Your task to perform on an android device: change keyboard looks Image 0: 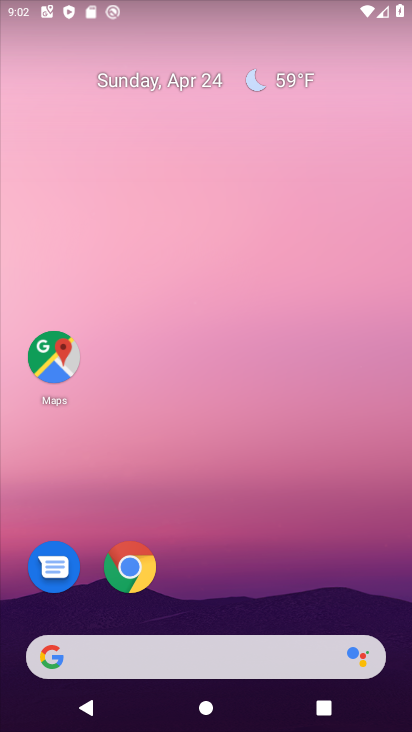
Step 0: drag from (376, 601) to (371, 237)
Your task to perform on an android device: change keyboard looks Image 1: 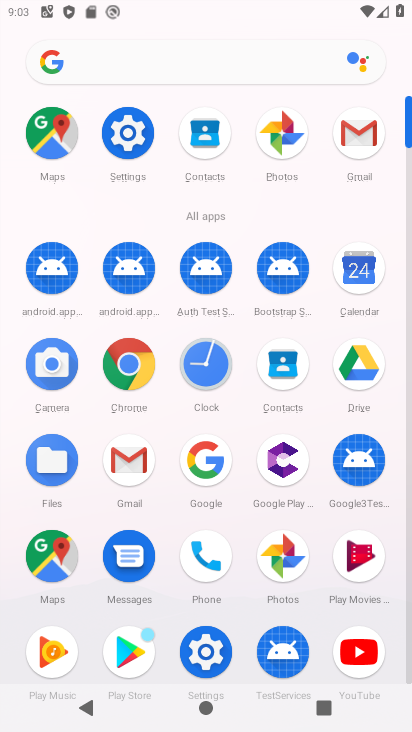
Step 1: click (202, 650)
Your task to perform on an android device: change keyboard looks Image 2: 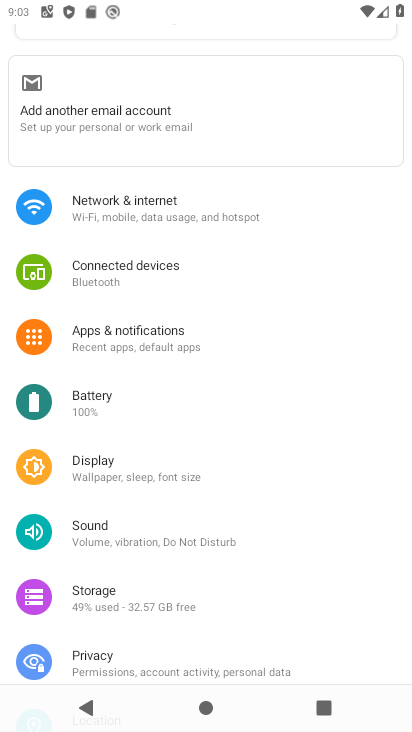
Step 2: drag from (325, 544) to (318, 359)
Your task to perform on an android device: change keyboard looks Image 3: 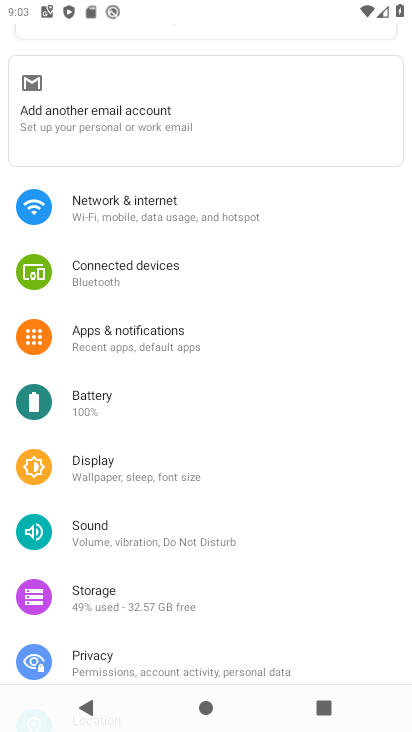
Step 3: drag from (308, 646) to (342, 274)
Your task to perform on an android device: change keyboard looks Image 4: 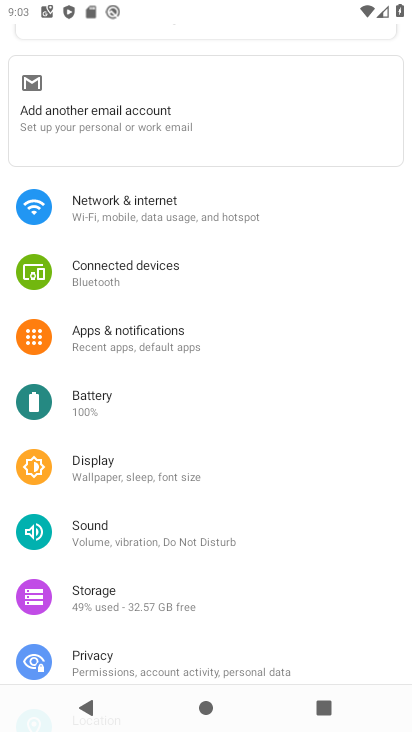
Step 4: drag from (306, 640) to (340, 241)
Your task to perform on an android device: change keyboard looks Image 5: 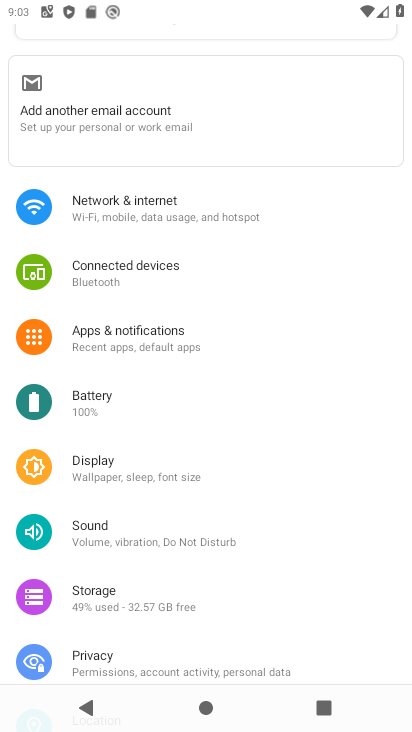
Step 5: drag from (341, 634) to (393, 216)
Your task to perform on an android device: change keyboard looks Image 6: 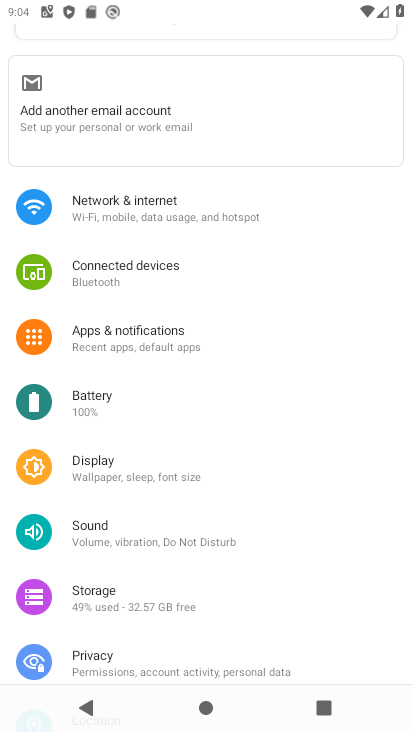
Step 6: drag from (324, 589) to (345, 209)
Your task to perform on an android device: change keyboard looks Image 7: 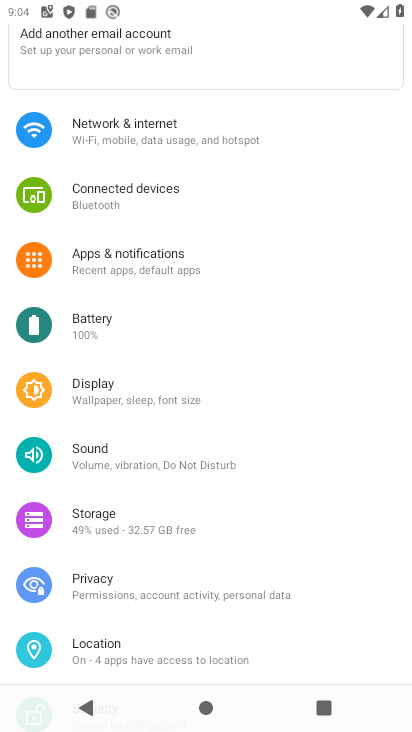
Step 7: drag from (364, 445) to (358, 268)
Your task to perform on an android device: change keyboard looks Image 8: 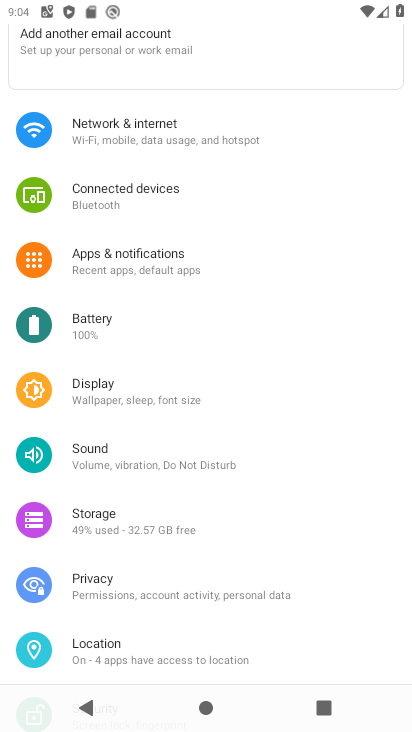
Step 8: drag from (314, 622) to (339, 226)
Your task to perform on an android device: change keyboard looks Image 9: 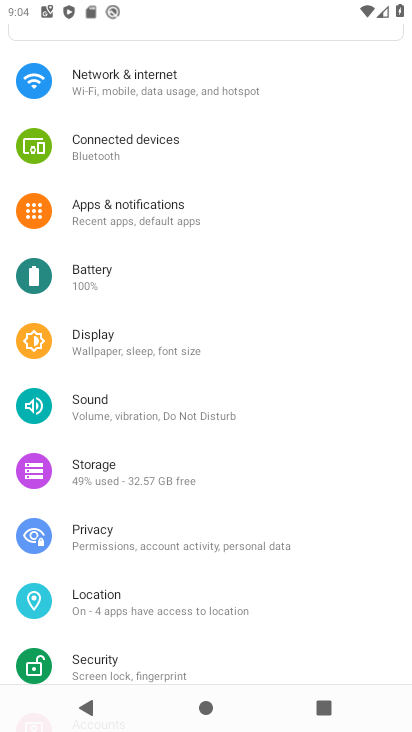
Step 9: drag from (367, 648) to (368, 304)
Your task to perform on an android device: change keyboard looks Image 10: 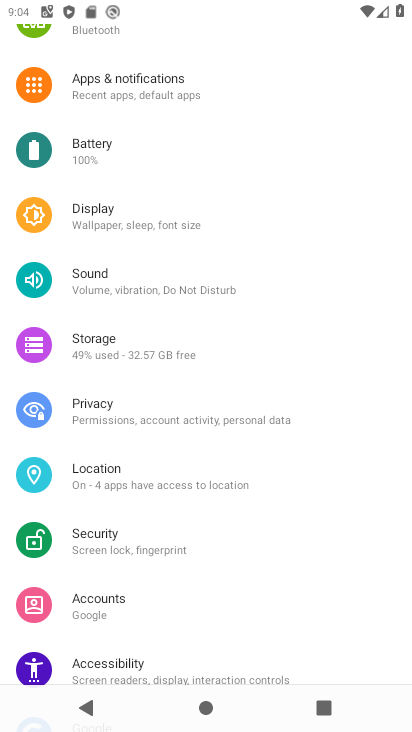
Step 10: drag from (366, 399) to (351, 148)
Your task to perform on an android device: change keyboard looks Image 11: 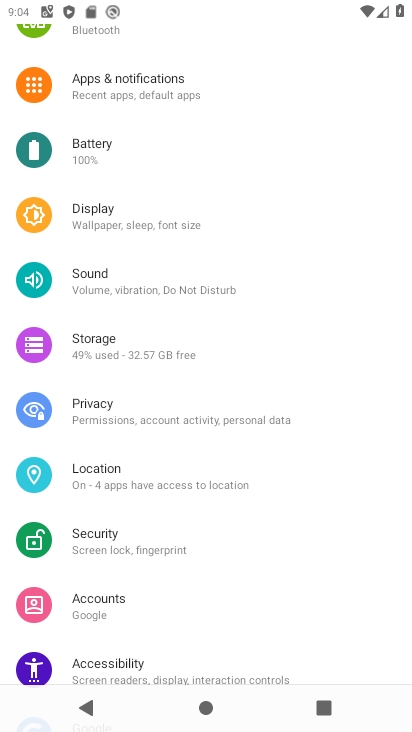
Step 11: click (80, 660)
Your task to perform on an android device: change keyboard looks Image 12: 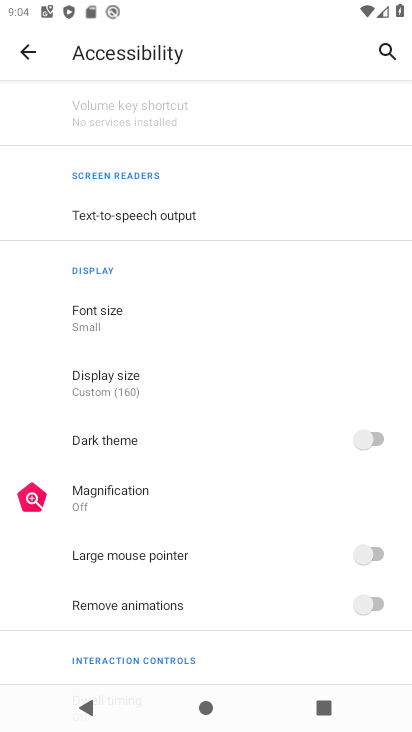
Step 12: click (31, 55)
Your task to perform on an android device: change keyboard looks Image 13: 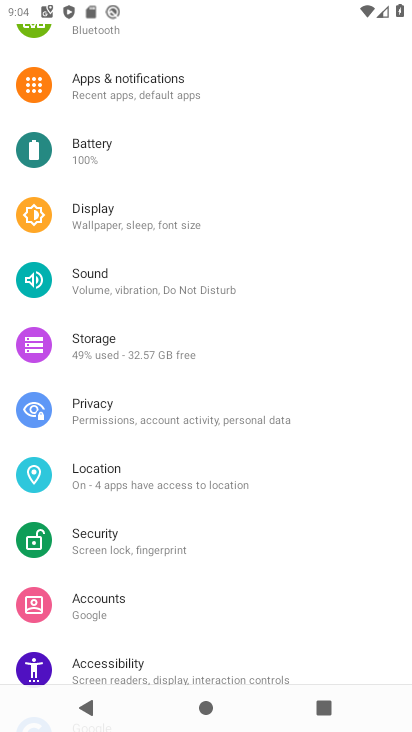
Step 13: drag from (286, 462) to (284, 249)
Your task to perform on an android device: change keyboard looks Image 14: 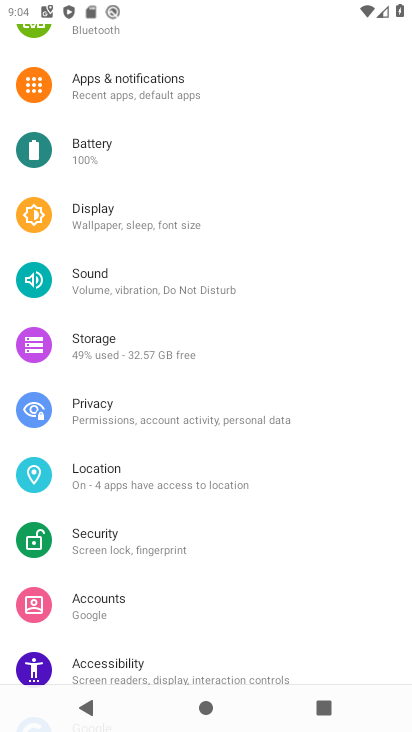
Step 14: drag from (343, 615) to (361, 289)
Your task to perform on an android device: change keyboard looks Image 15: 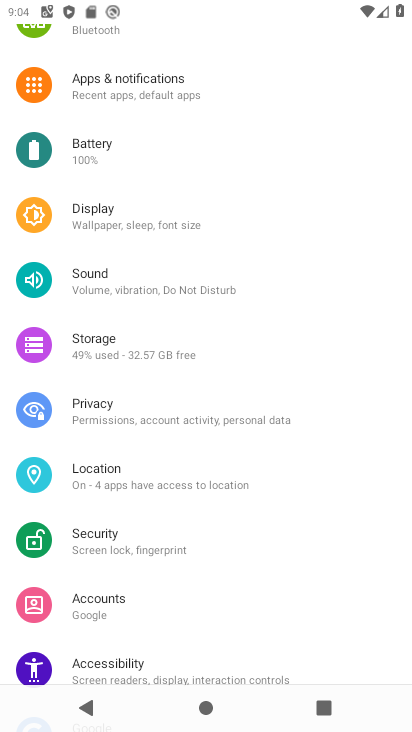
Step 15: drag from (381, 657) to (344, 113)
Your task to perform on an android device: change keyboard looks Image 16: 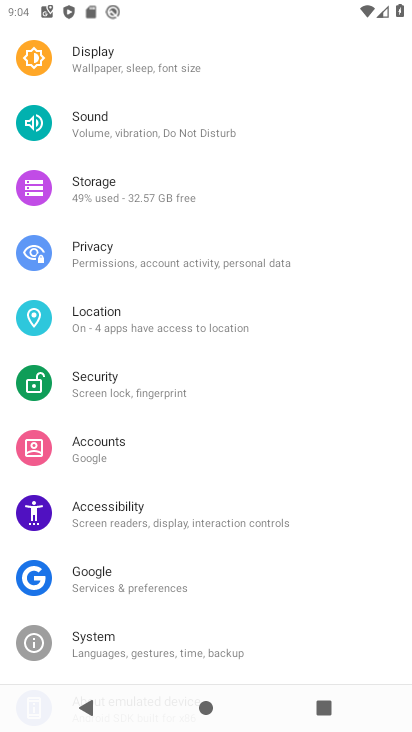
Step 16: click (92, 642)
Your task to perform on an android device: change keyboard looks Image 17: 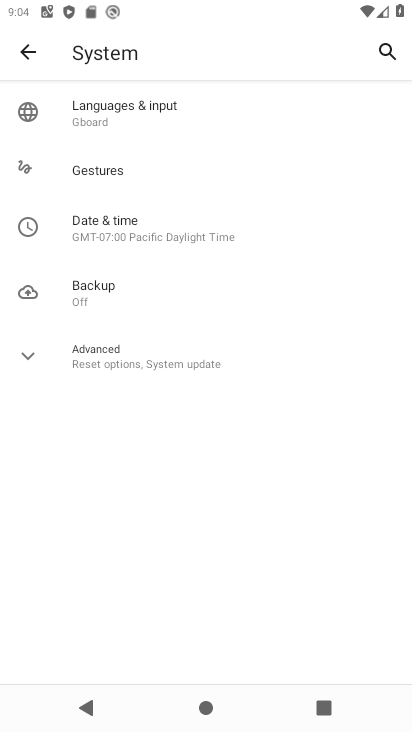
Step 17: click (95, 114)
Your task to perform on an android device: change keyboard looks Image 18: 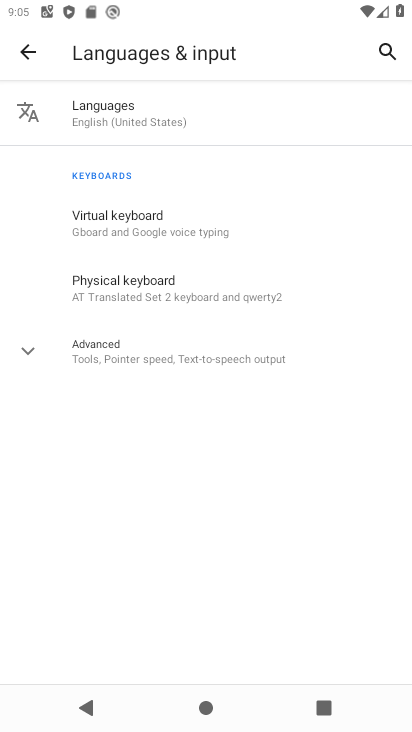
Step 18: click (115, 221)
Your task to perform on an android device: change keyboard looks Image 19: 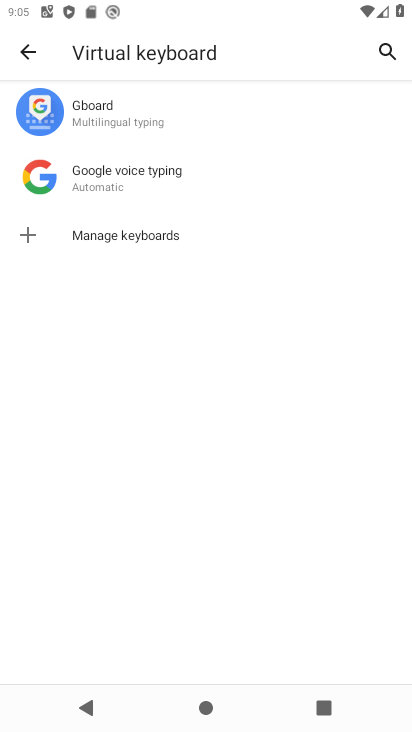
Step 19: click (89, 120)
Your task to perform on an android device: change keyboard looks Image 20: 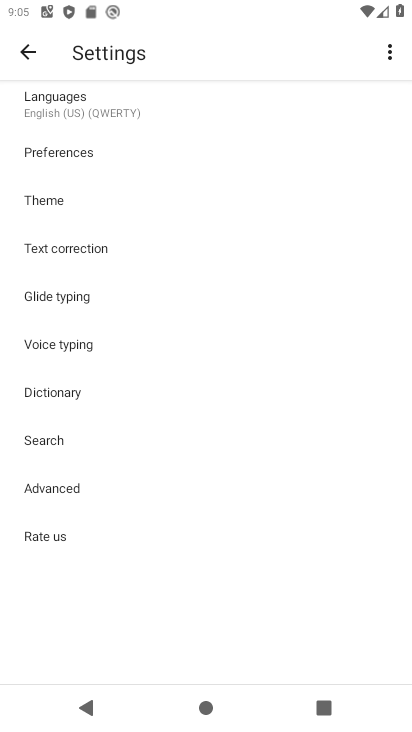
Step 20: click (48, 192)
Your task to perform on an android device: change keyboard looks Image 21: 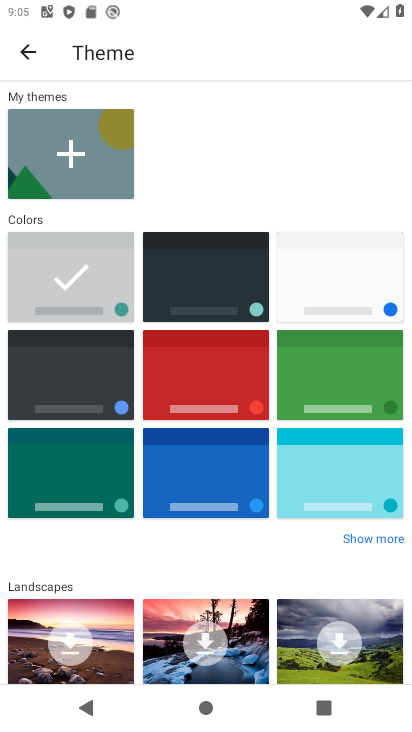
Step 21: click (104, 476)
Your task to perform on an android device: change keyboard looks Image 22: 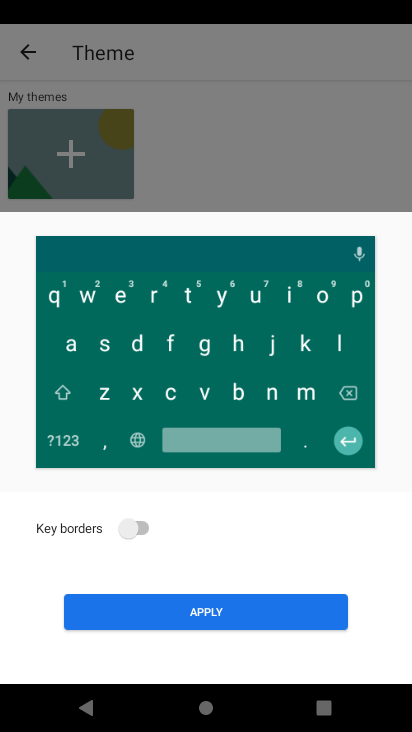
Step 22: click (146, 524)
Your task to perform on an android device: change keyboard looks Image 23: 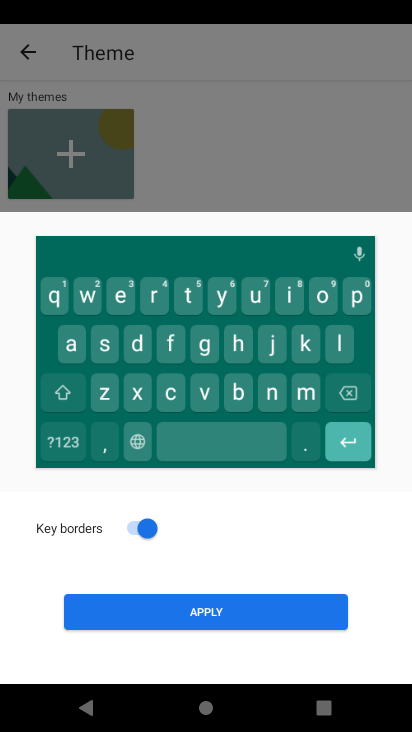
Step 23: click (199, 609)
Your task to perform on an android device: change keyboard looks Image 24: 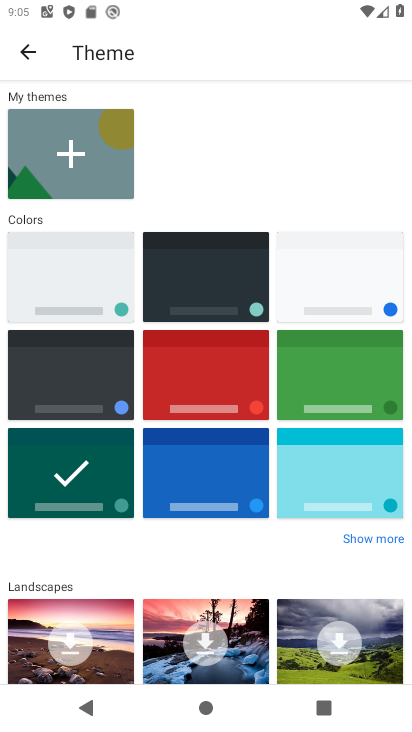
Step 24: task complete